Your task to perform on an android device: Open CNN.com Image 0: 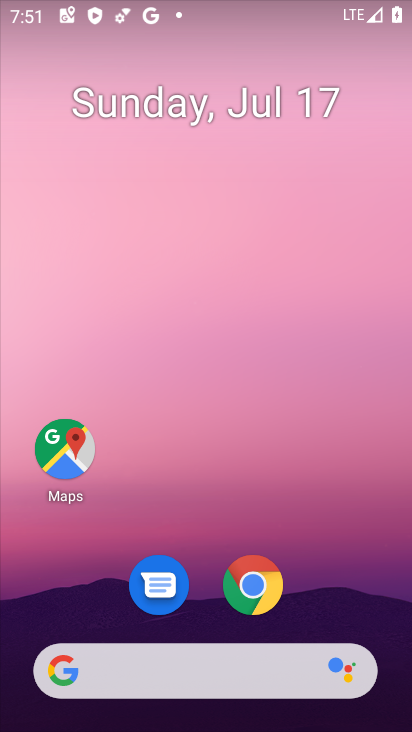
Step 0: click (238, 672)
Your task to perform on an android device: Open CNN.com Image 1: 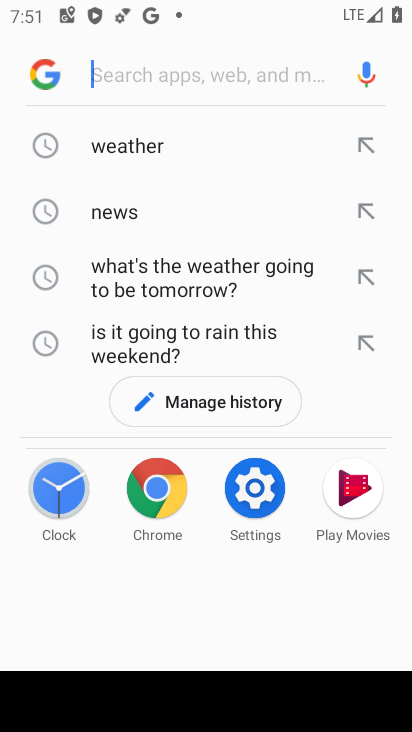
Step 1: type "cnn.com"
Your task to perform on an android device: Open CNN.com Image 2: 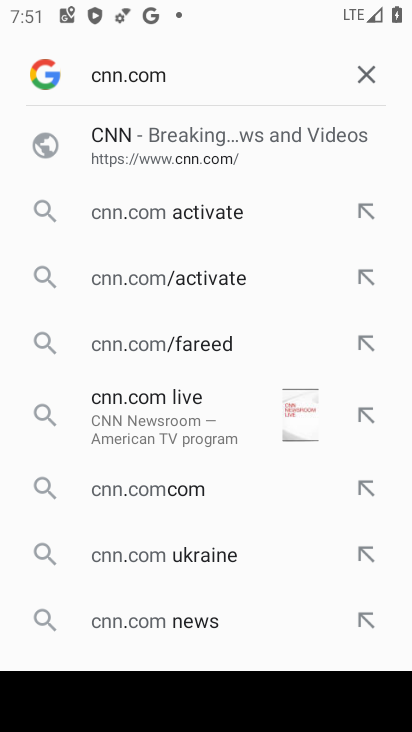
Step 2: click (172, 141)
Your task to perform on an android device: Open CNN.com Image 3: 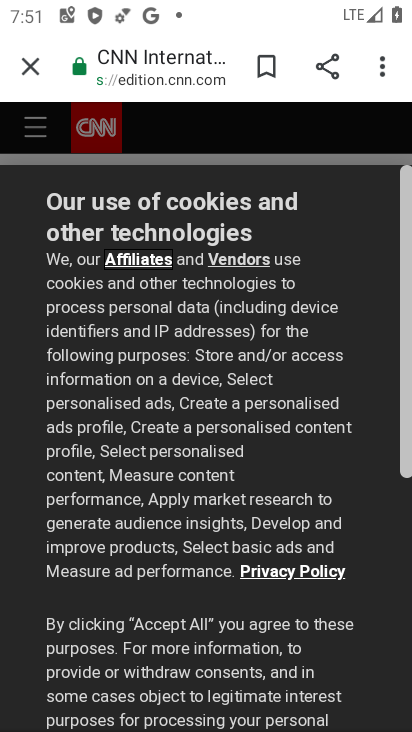
Step 3: drag from (261, 631) to (231, 279)
Your task to perform on an android device: Open CNN.com Image 4: 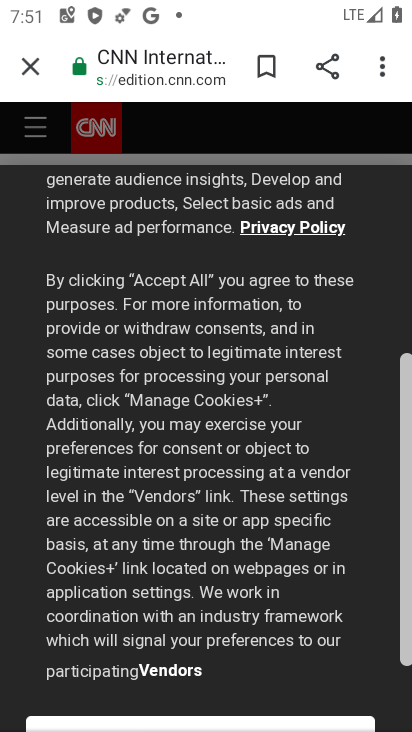
Step 4: drag from (200, 580) to (206, 247)
Your task to perform on an android device: Open CNN.com Image 5: 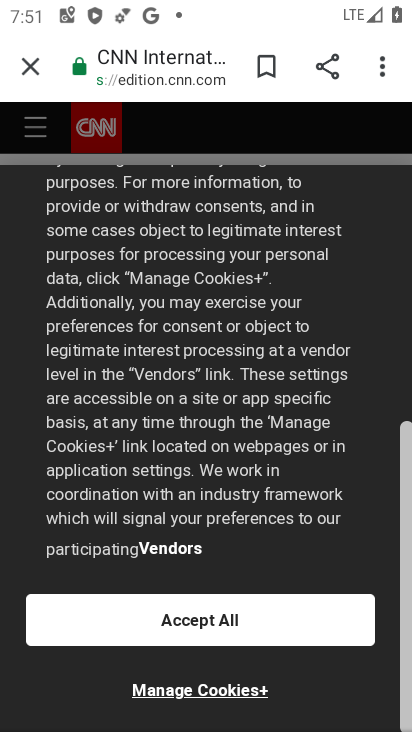
Step 5: click (269, 616)
Your task to perform on an android device: Open CNN.com Image 6: 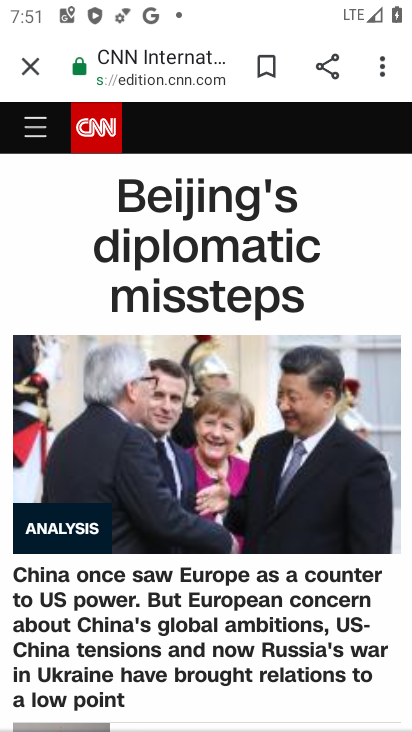
Step 6: task complete